Your task to perform on an android device: clear all cookies in the chrome app Image 0: 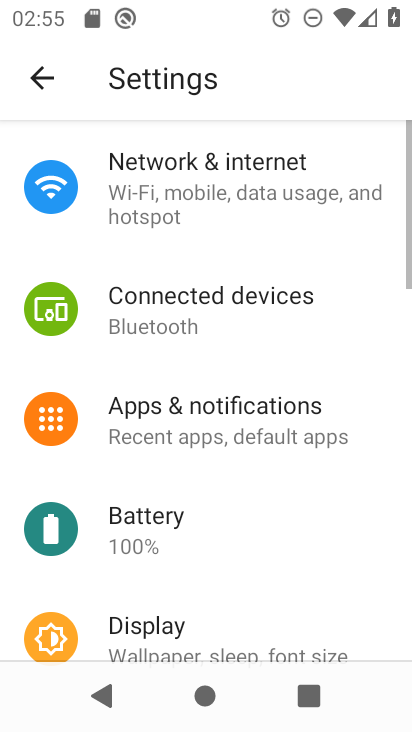
Step 0: press home button
Your task to perform on an android device: clear all cookies in the chrome app Image 1: 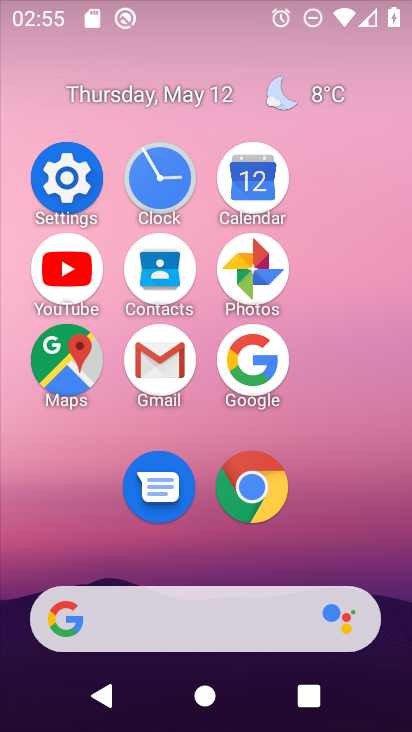
Step 1: click (261, 499)
Your task to perform on an android device: clear all cookies in the chrome app Image 2: 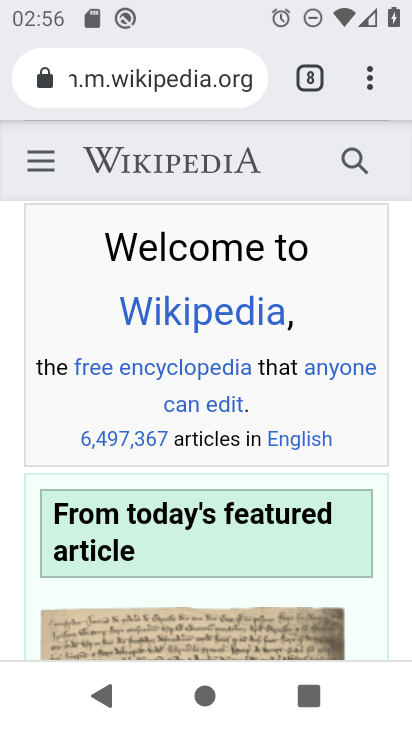
Step 2: click (371, 90)
Your task to perform on an android device: clear all cookies in the chrome app Image 3: 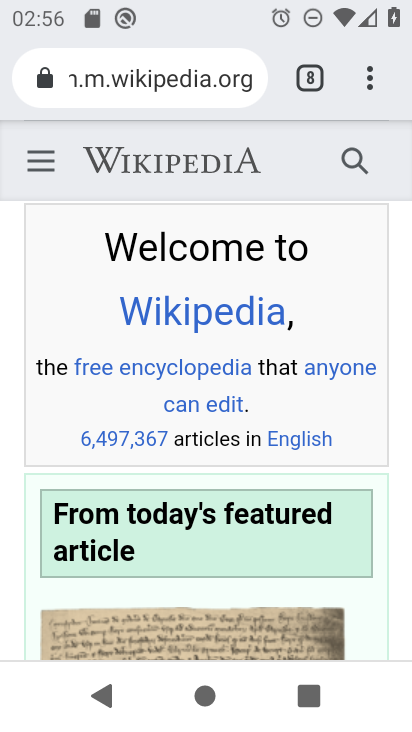
Step 3: click (373, 85)
Your task to perform on an android device: clear all cookies in the chrome app Image 4: 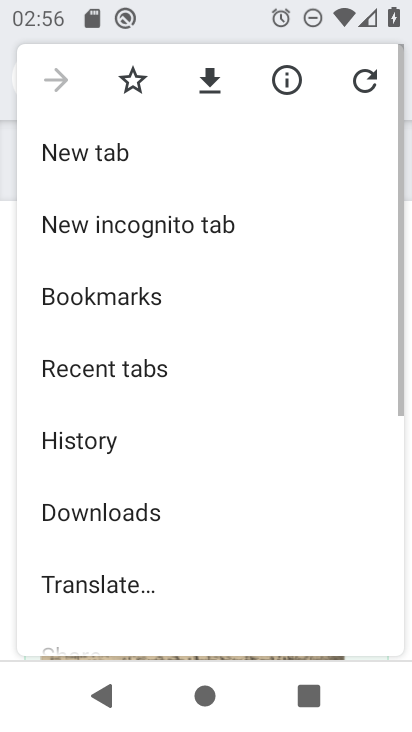
Step 4: drag from (262, 499) to (270, 193)
Your task to perform on an android device: clear all cookies in the chrome app Image 5: 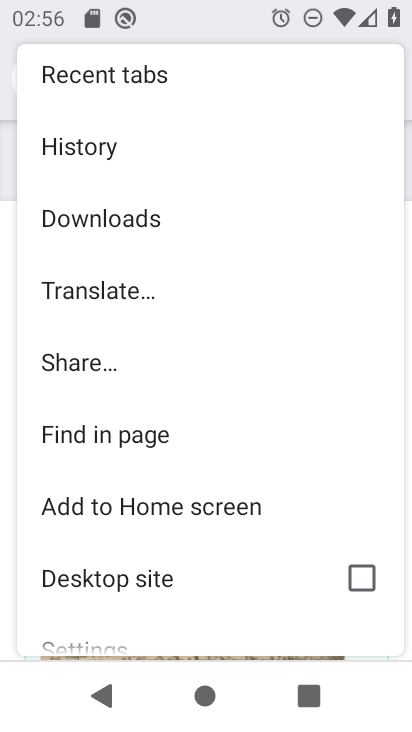
Step 5: drag from (104, 550) to (146, 209)
Your task to perform on an android device: clear all cookies in the chrome app Image 6: 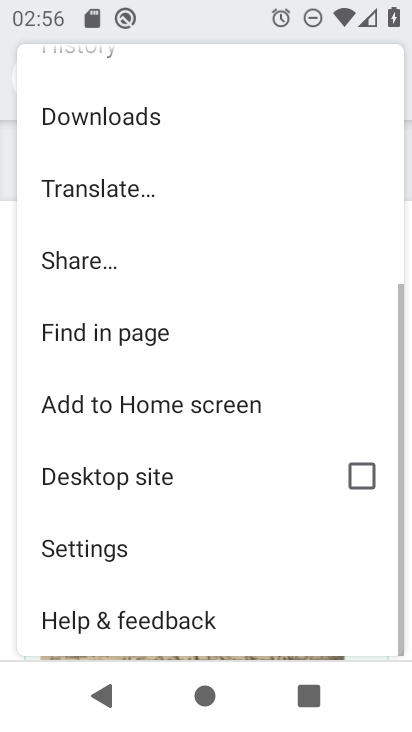
Step 6: click (115, 540)
Your task to perform on an android device: clear all cookies in the chrome app Image 7: 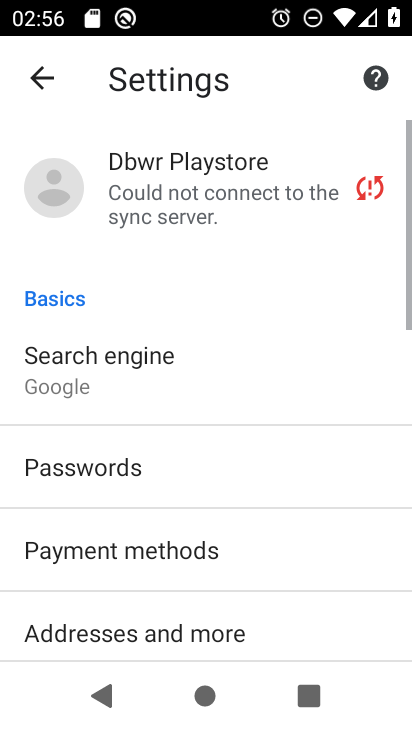
Step 7: drag from (156, 561) to (195, 213)
Your task to perform on an android device: clear all cookies in the chrome app Image 8: 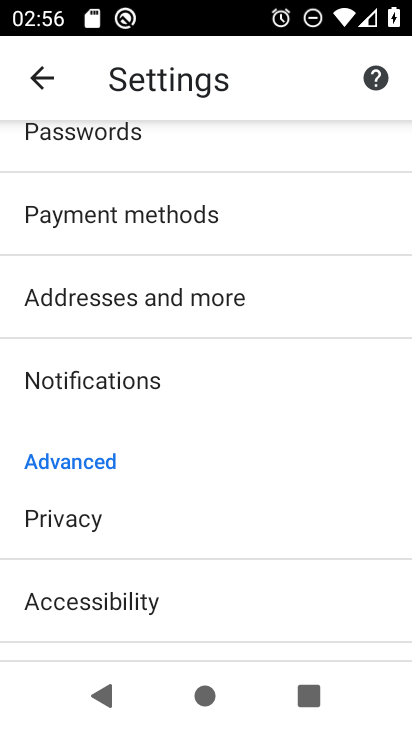
Step 8: click (184, 508)
Your task to perform on an android device: clear all cookies in the chrome app Image 9: 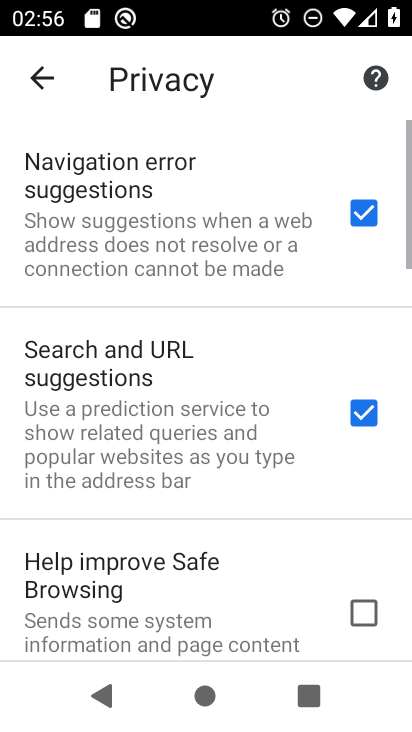
Step 9: drag from (184, 508) to (198, 178)
Your task to perform on an android device: clear all cookies in the chrome app Image 10: 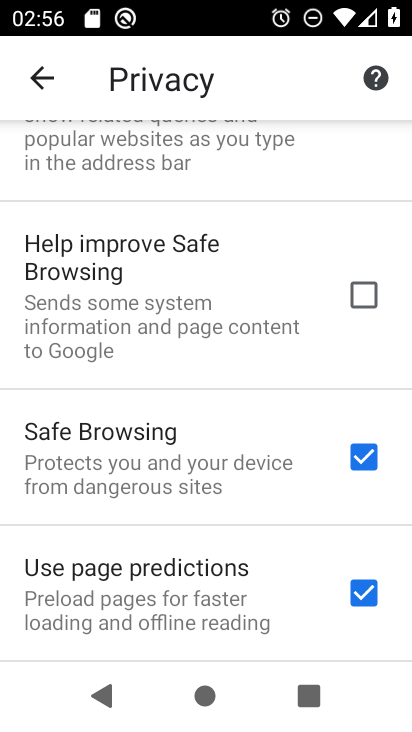
Step 10: drag from (262, 547) to (250, 187)
Your task to perform on an android device: clear all cookies in the chrome app Image 11: 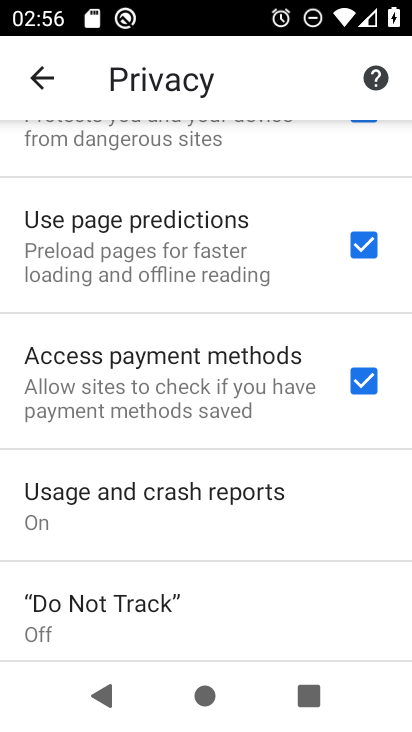
Step 11: drag from (214, 593) to (255, 142)
Your task to perform on an android device: clear all cookies in the chrome app Image 12: 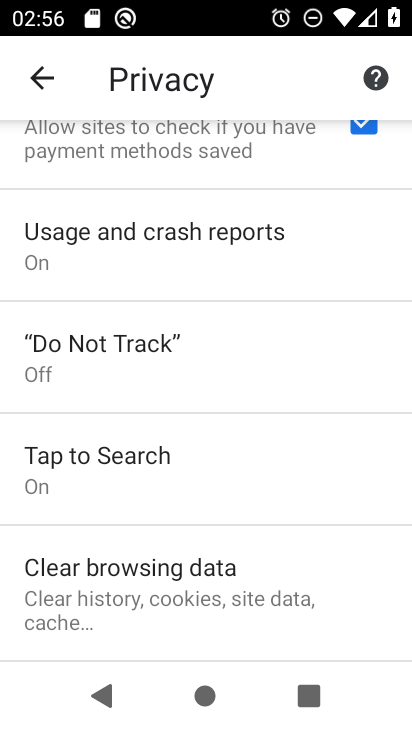
Step 12: click (232, 562)
Your task to perform on an android device: clear all cookies in the chrome app Image 13: 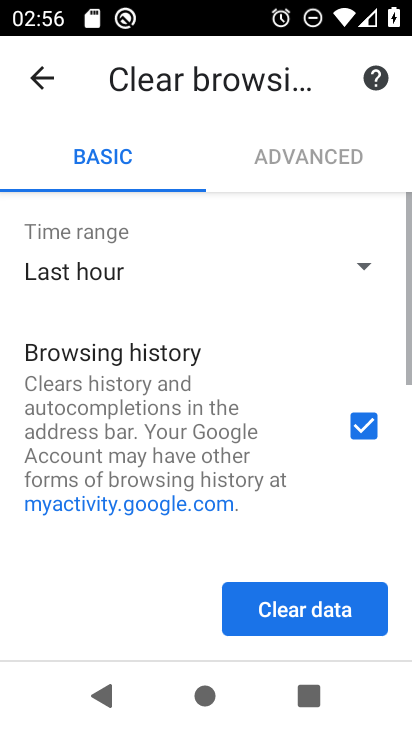
Step 13: drag from (307, 508) to (298, 139)
Your task to perform on an android device: clear all cookies in the chrome app Image 14: 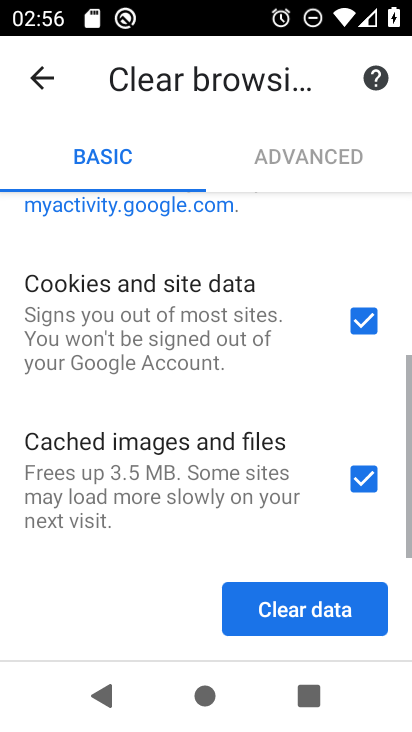
Step 14: click (254, 594)
Your task to perform on an android device: clear all cookies in the chrome app Image 15: 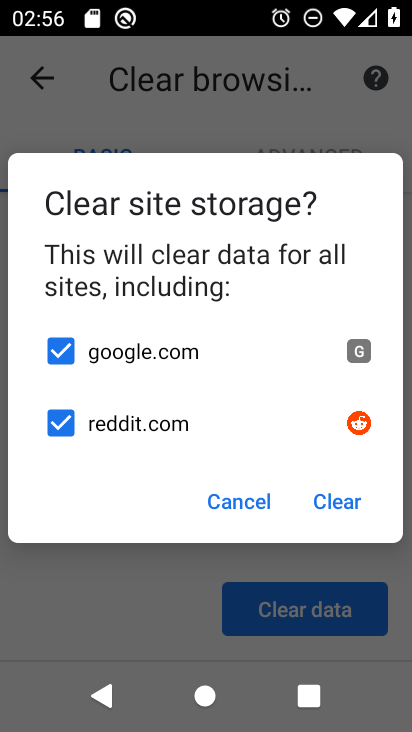
Step 15: click (354, 496)
Your task to perform on an android device: clear all cookies in the chrome app Image 16: 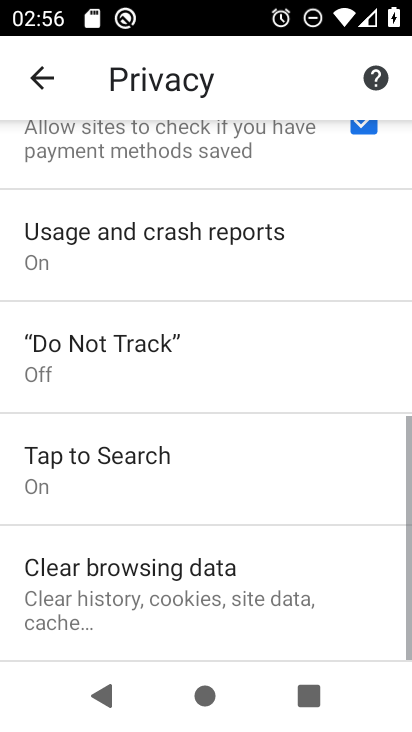
Step 16: task complete